Your task to perform on an android device: check storage Image 0: 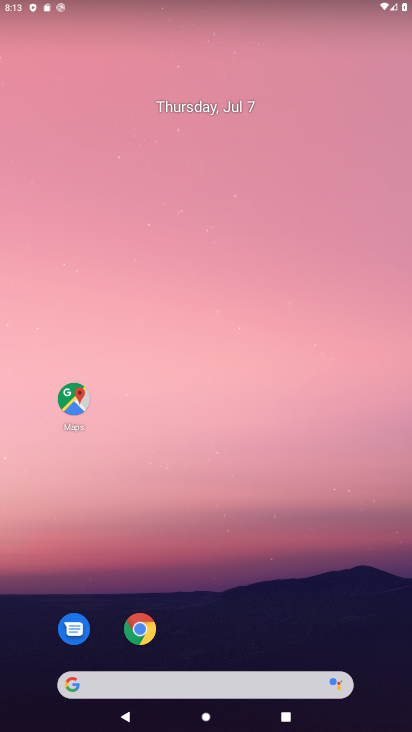
Step 0: drag from (389, 561) to (297, 2)
Your task to perform on an android device: check storage Image 1: 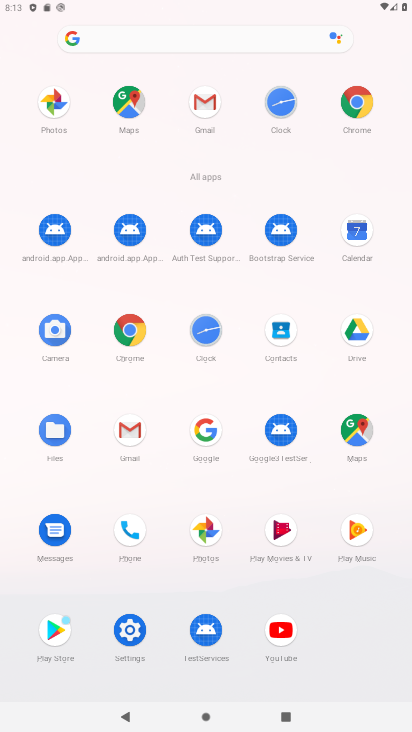
Step 1: click (120, 625)
Your task to perform on an android device: check storage Image 2: 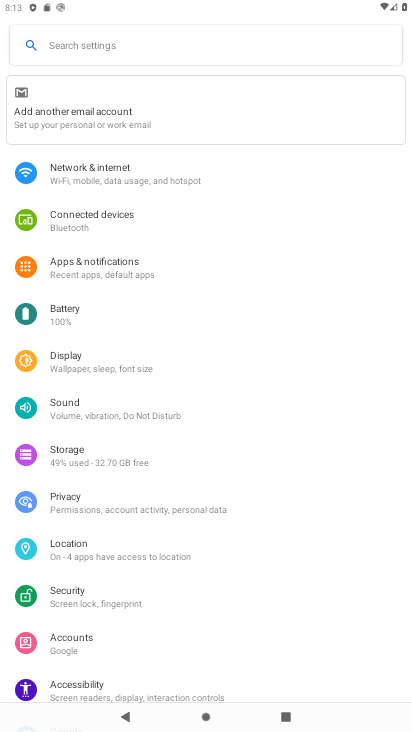
Step 2: click (101, 459)
Your task to perform on an android device: check storage Image 3: 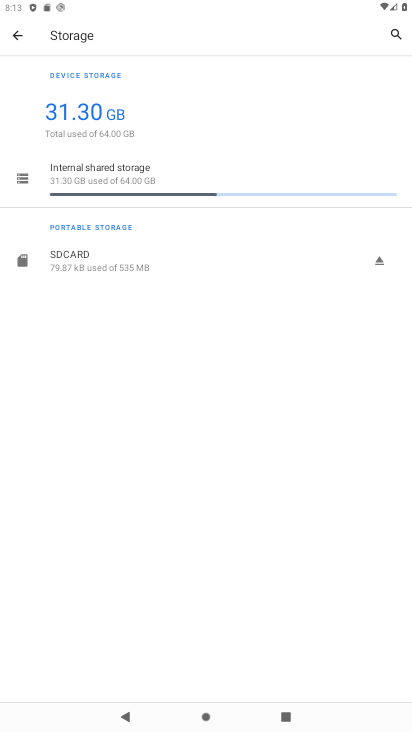
Step 3: task complete